Your task to perform on an android device: Go to Android settings Image 0: 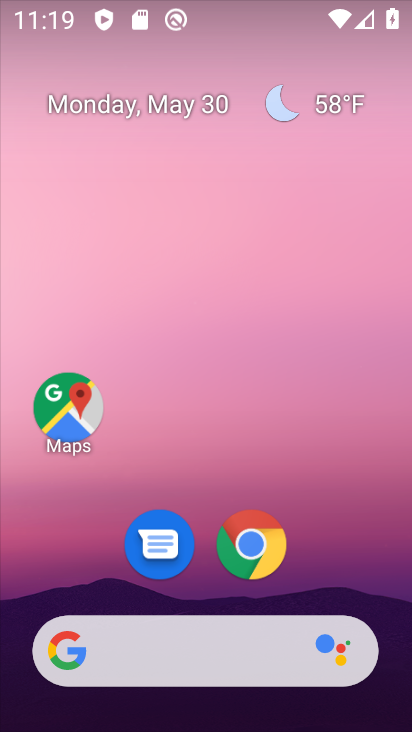
Step 0: drag from (363, 559) to (278, 124)
Your task to perform on an android device: Go to Android settings Image 1: 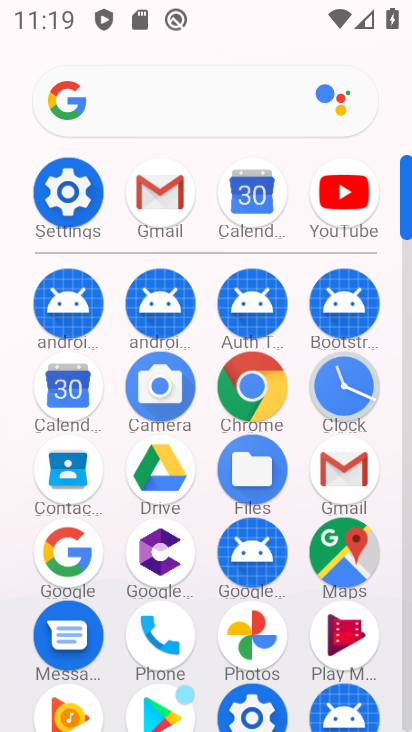
Step 1: click (63, 201)
Your task to perform on an android device: Go to Android settings Image 2: 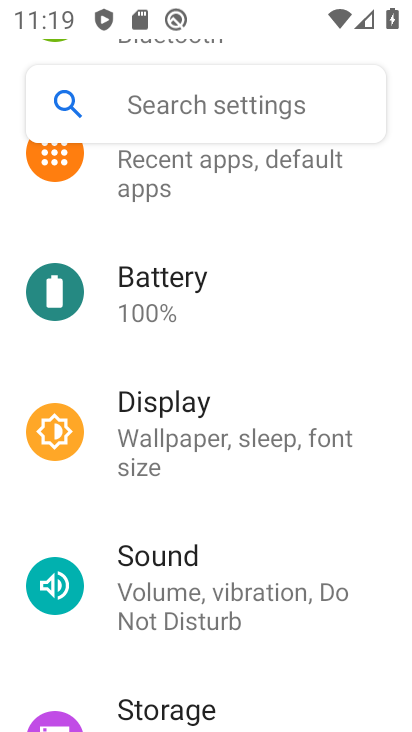
Step 2: task complete